Your task to perform on an android device: Go to Amazon Image 0: 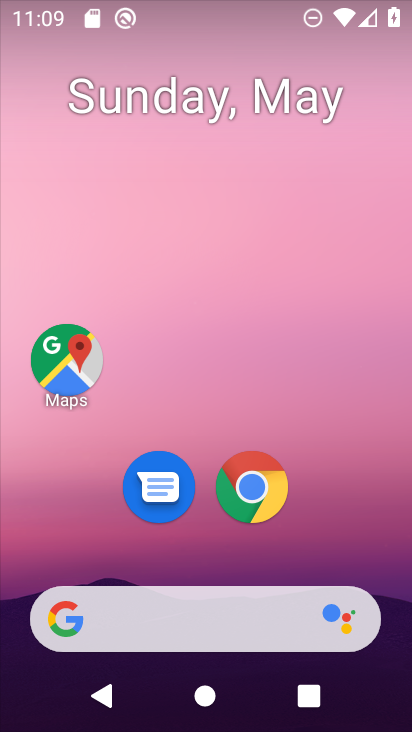
Step 0: click (247, 493)
Your task to perform on an android device: Go to Amazon Image 1: 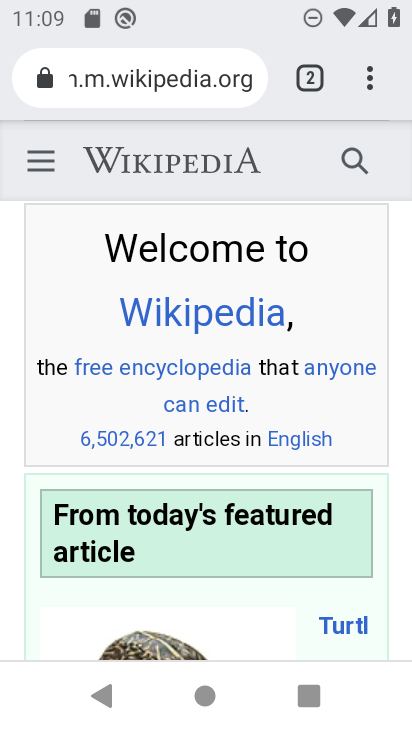
Step 1: click (325, 68)
Your task to perform on an android device: Go to Amazon Image 2: 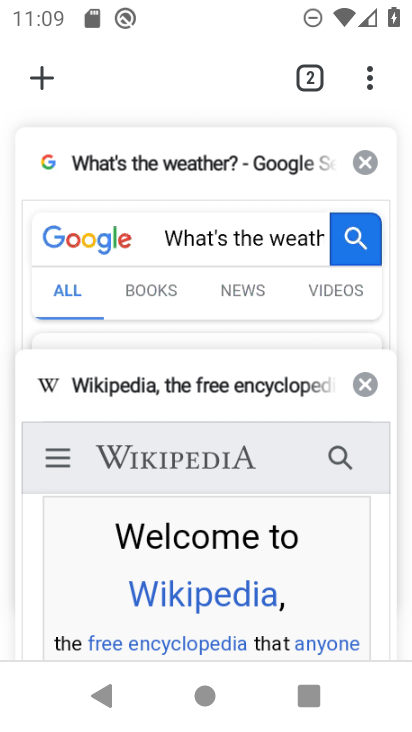
Step 2: click (40, 77)
Your task to perform on an android device: Go to Amazon Image 3: 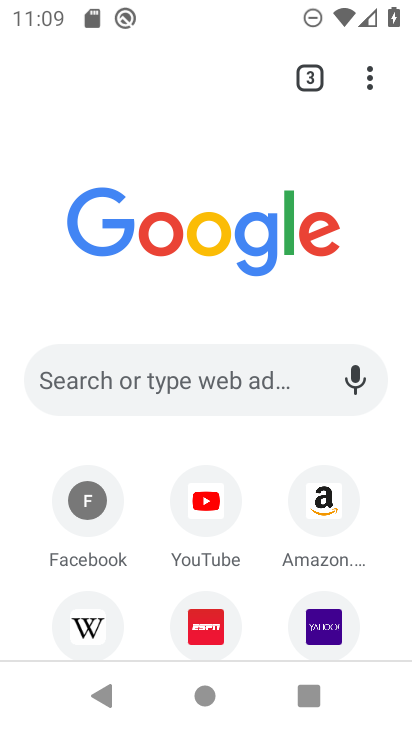
Step 3: click (339, 537)
Your task to perform on an android device: Go to Amazon Image 4: 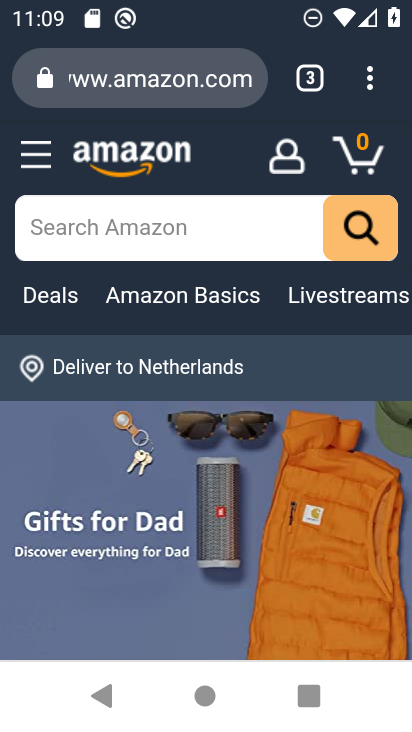
Step 4: task complete